Your task to perform on an android device: Open network settings Image 0: 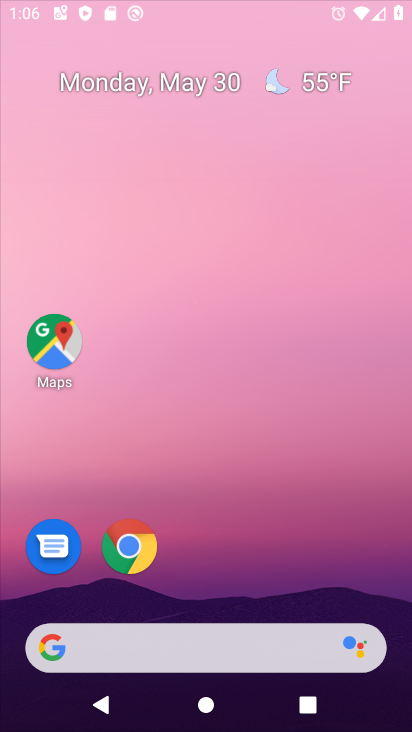
Step 0: press home button
Your task to perform on an android device: Open network settings Image 1: 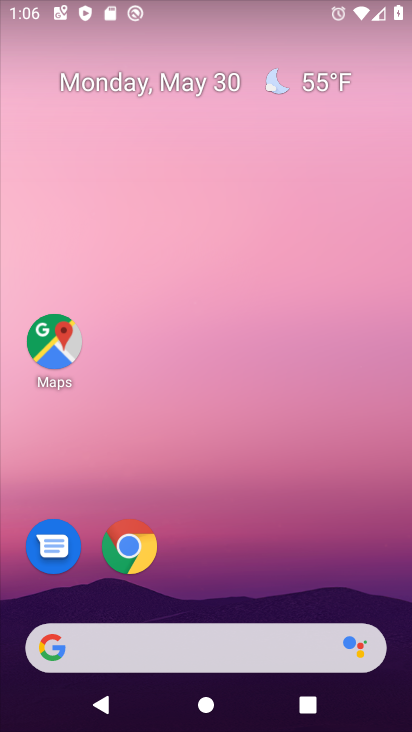
Step 1: drag from (275, 570) to (267, 18)
Your task to perform on an android device: Open network settings Image 2: 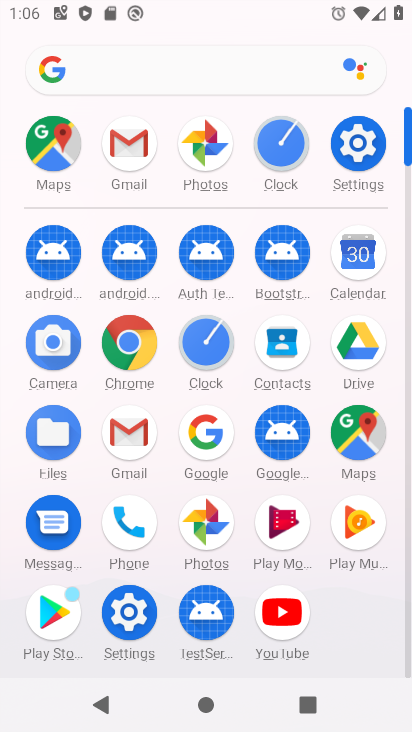
Step 2: click (366, 139)
Your task to perform on an android device: Open network settings Image 3: 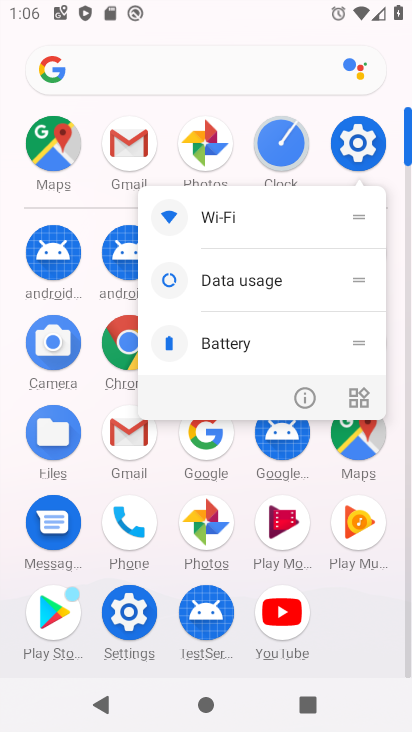
Step 3: click (358, 141)
Your task to perform on an android device: Open network settings Image 4: 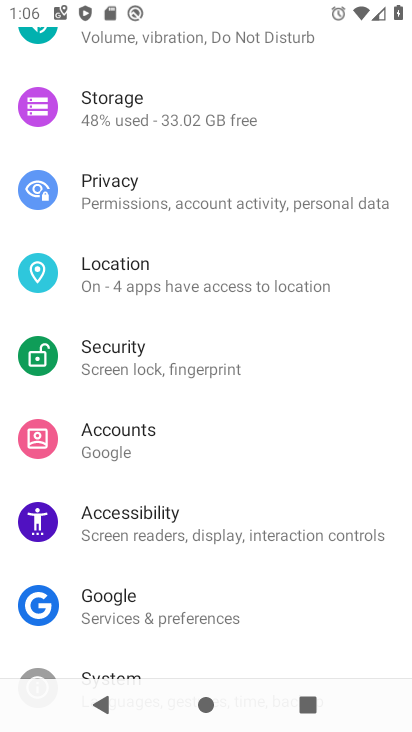
Step 4: drag from (323, 132) to (306, 603)
Your task to perform on an android device: Open network settings Image 5: 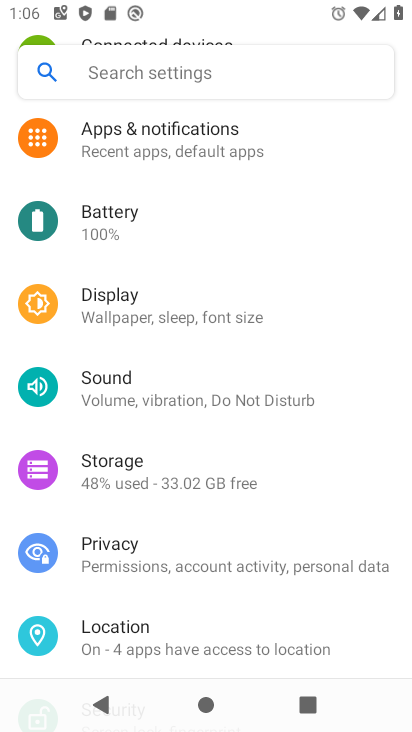
Step 5: drag from (283, 203) to (279, 568)
Your task to perform on an android device: Open network settings Image 6: 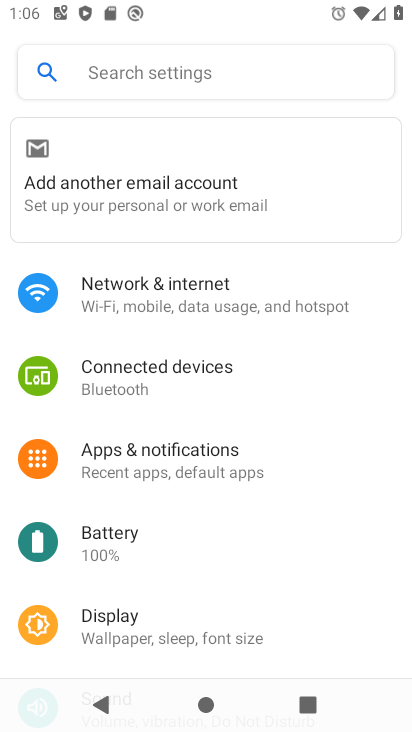
Step 6: click (151, 286)
Your task to perform on an android device: Open network settings Image 7: 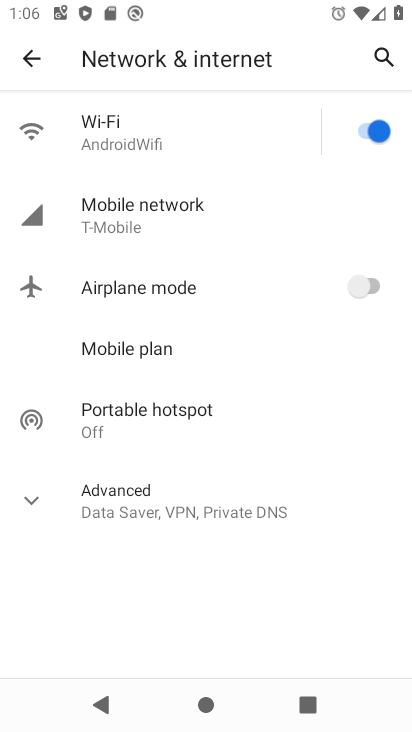
Step 7: task complete